Your task to perform on an android device: What's the weather? Image 0: 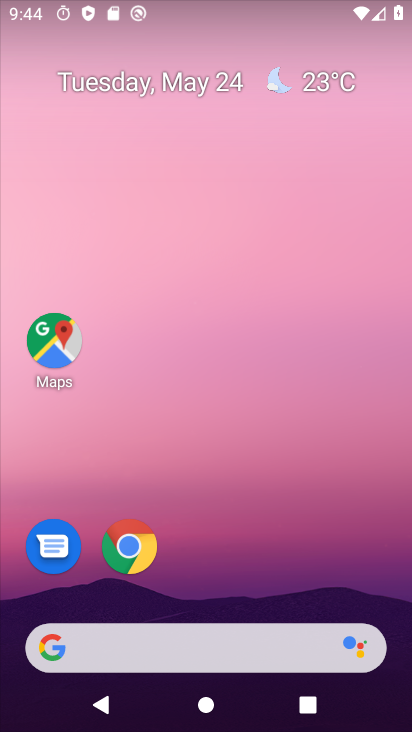
Step 0: drag from (237, 566) to (279, 35)
Your task to perform on an android device: What's the weather? Image 1: 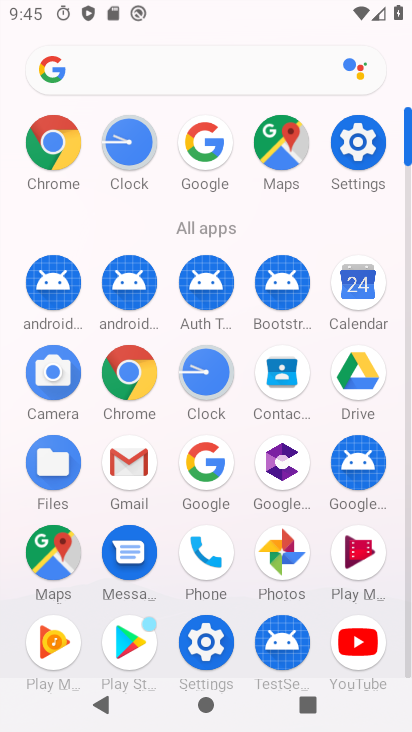
Step 1: click (207, 464)
Your task to perform on an android device: What's the weather? Image 2: 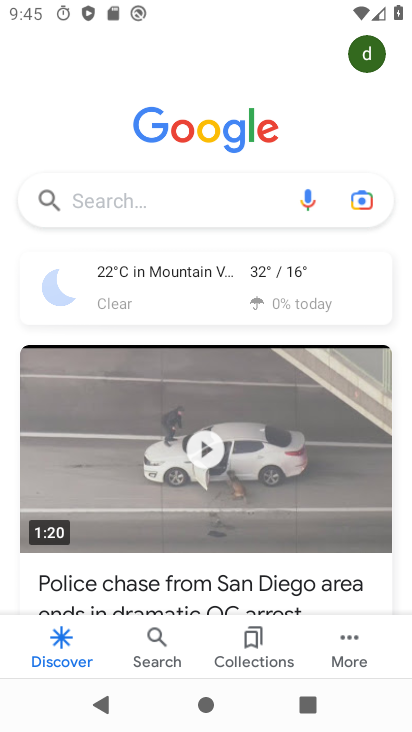
Step 2: click (138, 203)
Your task to perform on an android device: What's the weather? Image 3: 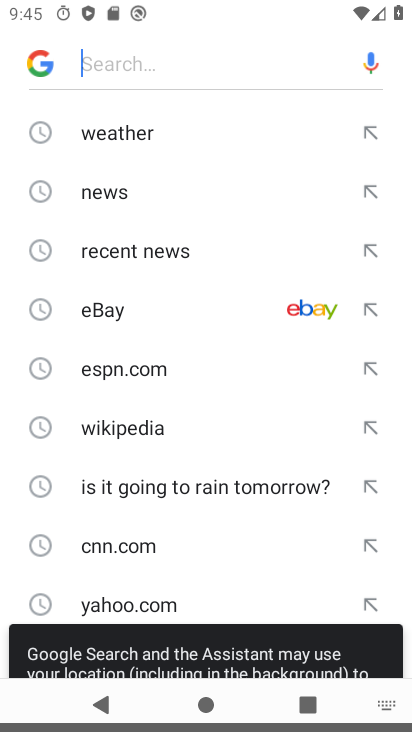
Step 3: click (110, 135)
Your task to perform on an android device: What's the weather? Image 4: 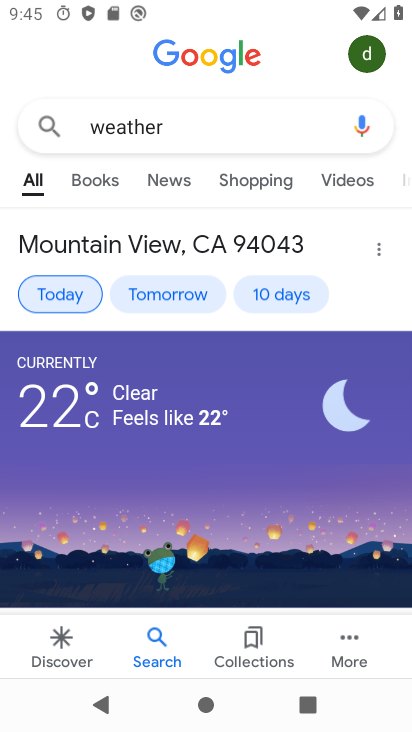
Step 4: task complete